Your task to perform on an android device: check android version Image 0: 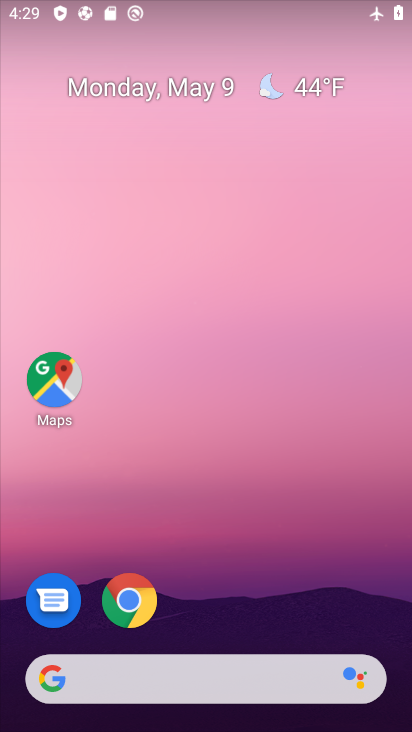
Step 0: drag from (249, 551) to (322, 32)
Your task to perform on an android device: check android version Image 1: 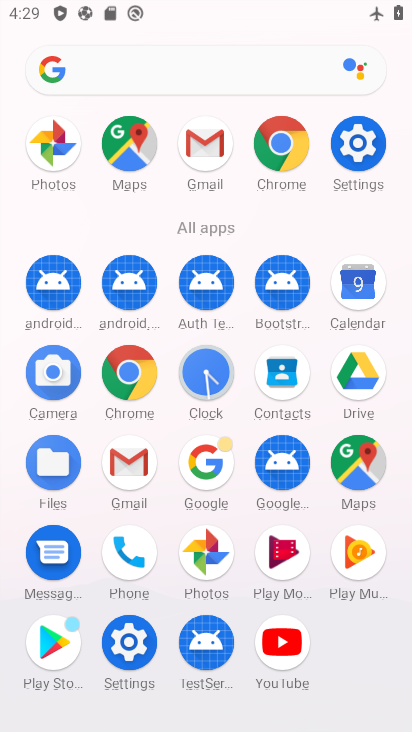
Step 1: click (363, 136)
Your task to perform on an android device: check android version Image 2: 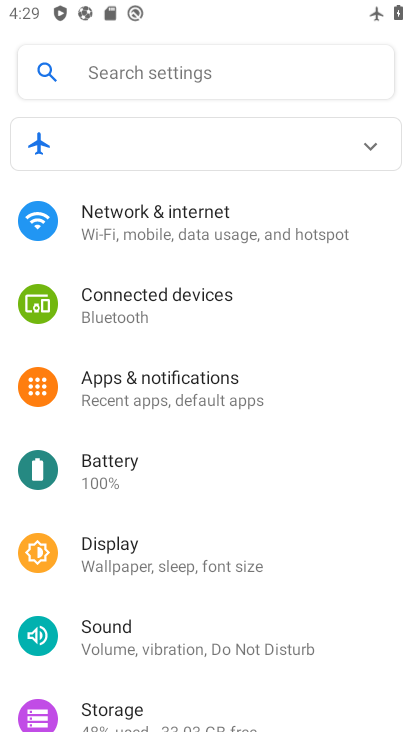
Step 2: drag from (244, 545) to (290, 5)
Your task to perform on an android device: check android version Image 3: 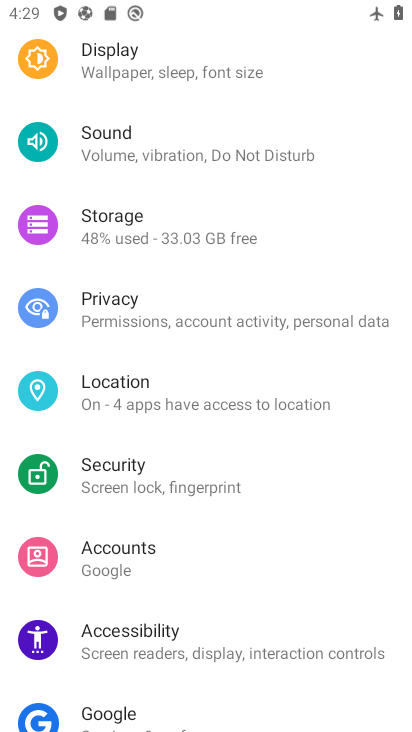
Step 3: drag from (315, 625) to (371, 27)
Your task to perform on an android device: check android version Image 4: 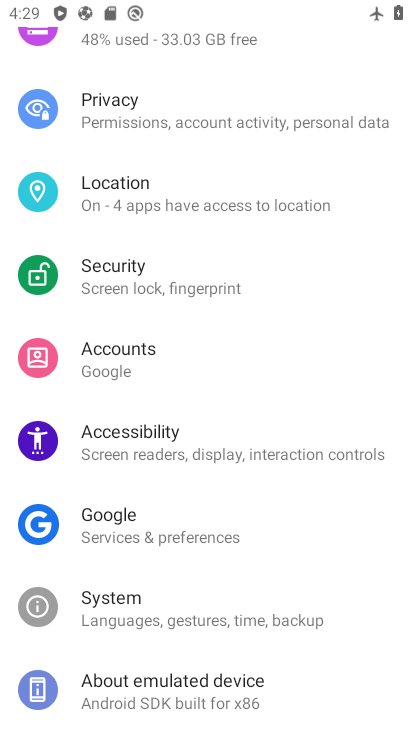
Step 4: click (215, 689)
Your task to perform on an android device: check android version Image 5: 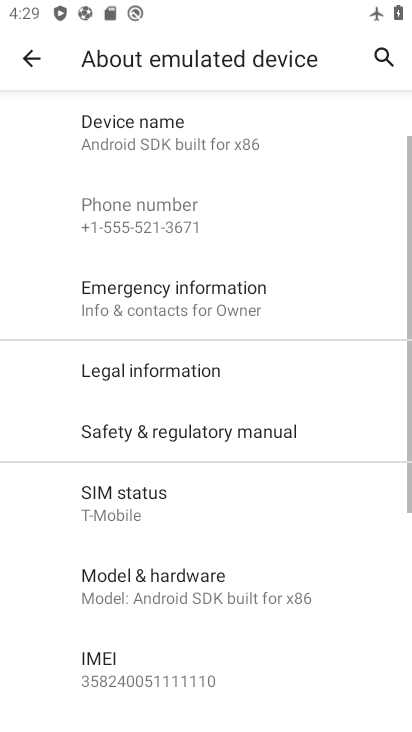
Step 5: drag from (247, 505) to (272, 145)
Your task to perform on an android device: check android version Image 6: 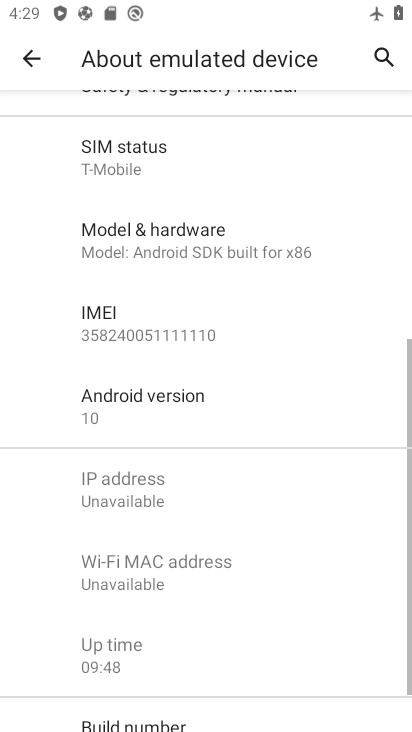
Step 6: click (142, 404)
Your task to perform on an android device: check android version Image 7: 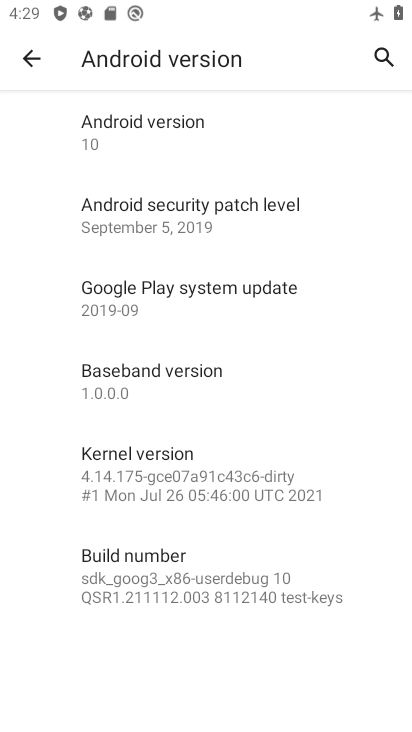
Step 7: task complete